Your task to perform on an android device: Is it going to rain this weekend? Image 0: 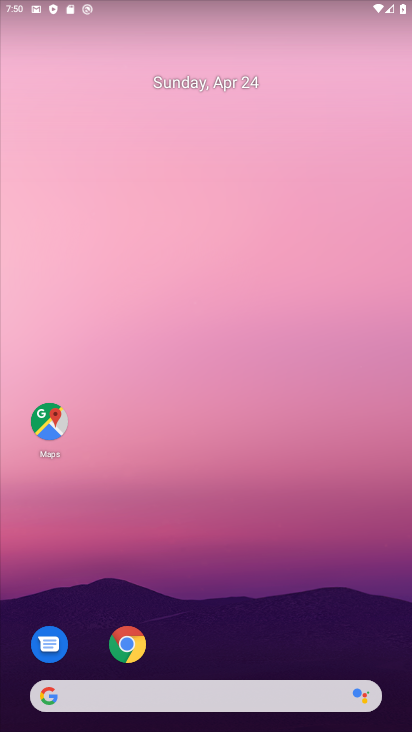
Step 0: drag from (231, 690) to (218, 234)
Your task to perform on an android device: Is it going to rain this weekend? Image 1: 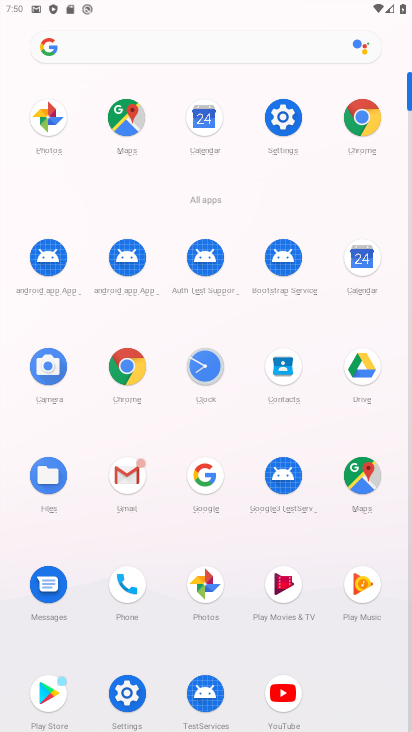
Step 1: click (210, 478)
Your task to perform on an android device: Is it going to rain this weekend? Image 2: 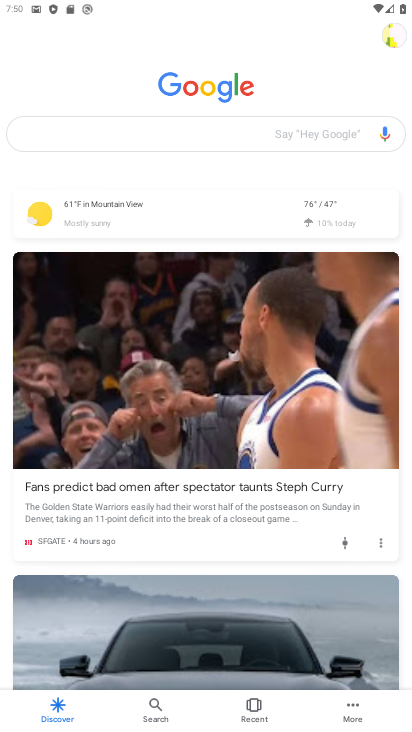
Step 2: click (139, 205)
Your task to perform on an android device: Is it going to rain this weekend? Image 3: 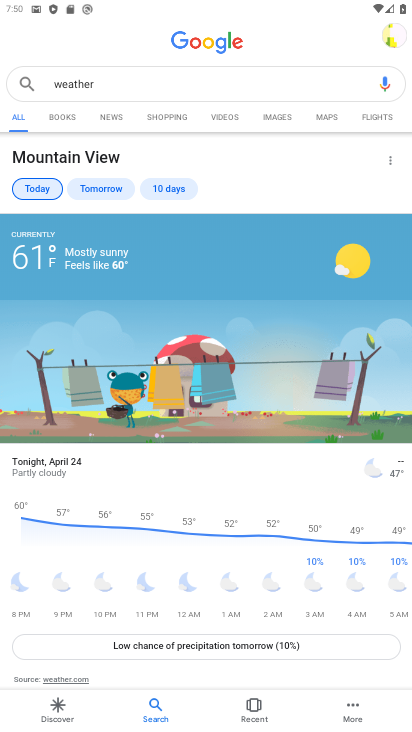
Step 3: click (151, 196)
Your task to perform on an android device: Is it going to rain this weekend? Image 4: 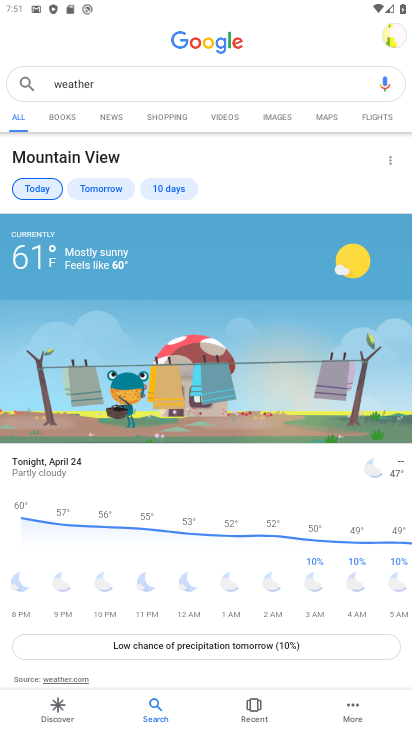
Step 4: drag from (229, 619) to (227, 239)
Your task to perform on an android device: Is it going to rain this weekend? Image 5: 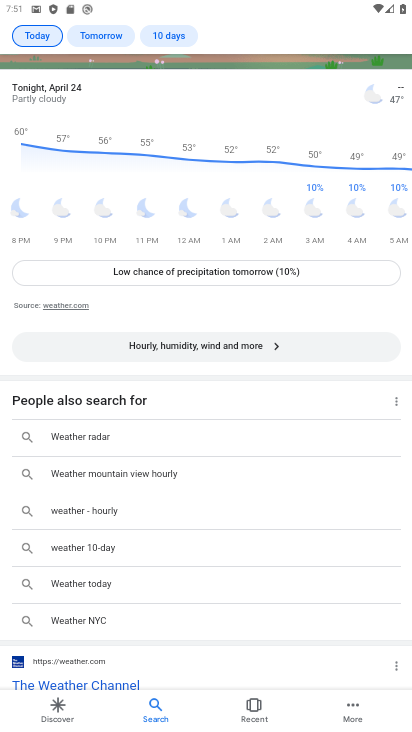
Step 5: click (113, 549)
Your task to perform on an android device: Is it going to rain this weekend? Image 6: 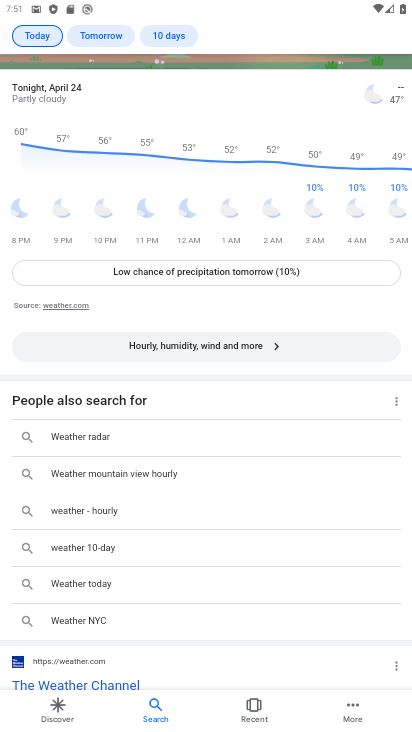
Step 6: click (95, 547)
Your task to perform on an android device: Is it going to rain this weekend? Image 7: 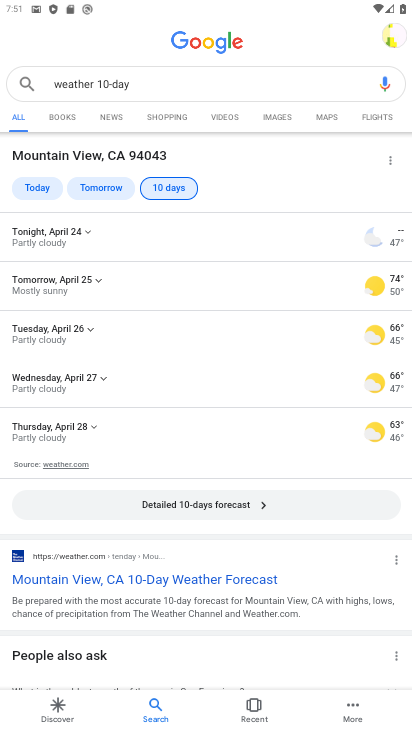
Step 7: task complete